Your task to perform on an android device: delete the emails in spam in the gmail app Image 0: 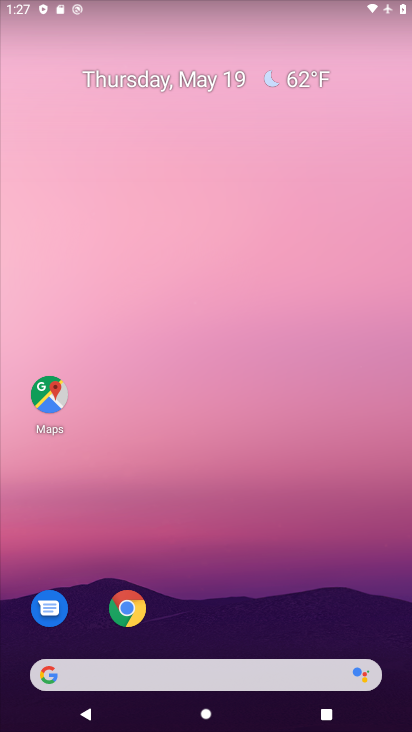
Step 0: drag from (226, 631) to (241, 180)
Your task to perform on an android device: delete the emails in spam in the gmail app Image 1: 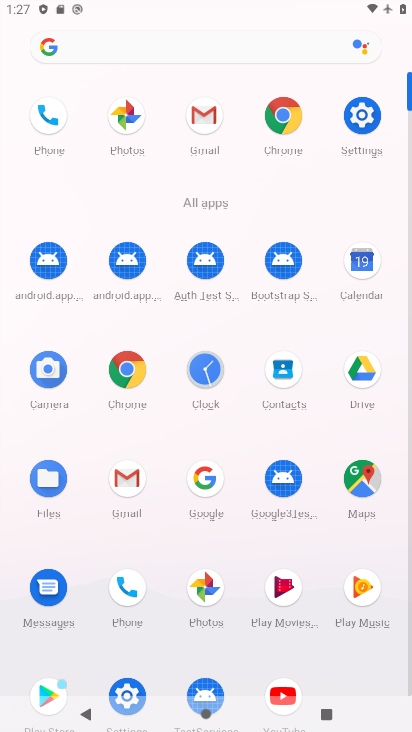
Step 1: click (127, 512)
Your task to perform on an android device: delete the emails in spam in the gmail app Image 2: 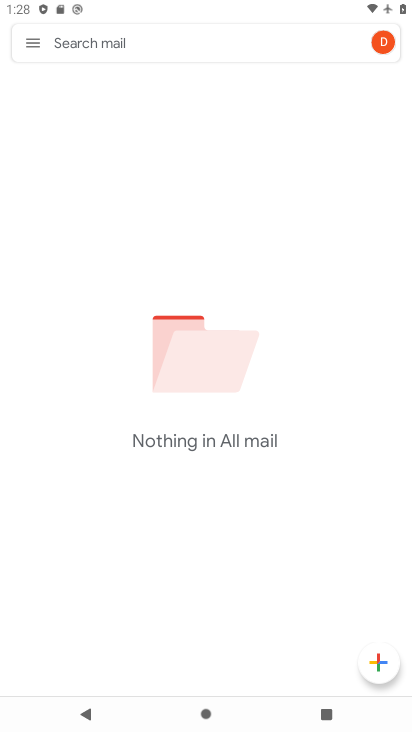
Step 2: click (48, 26)
Your task to perform on an android device: delete the emails in spam in the gmail app Image 3: 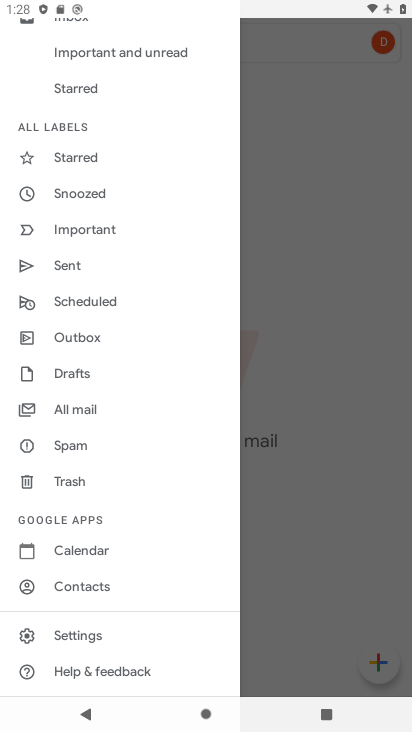
Step 3: click (85, 400)
Your task to perform on an android device: delete the emails in spam in the gmail app Image 4: 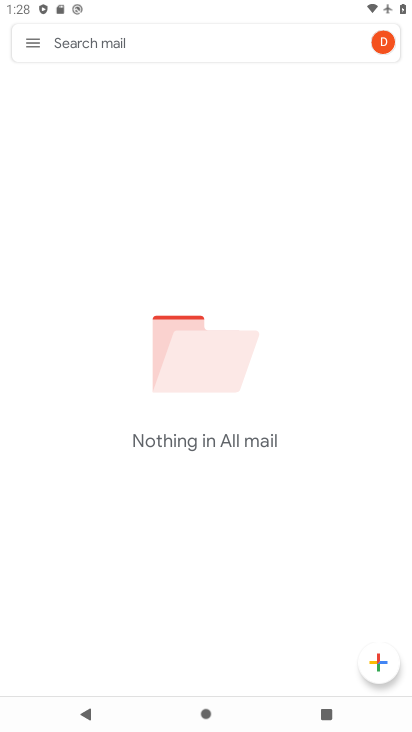
Step 4: task complete